Your task to perform on an android device: turn vacation reply on in the gmail app Image 0: 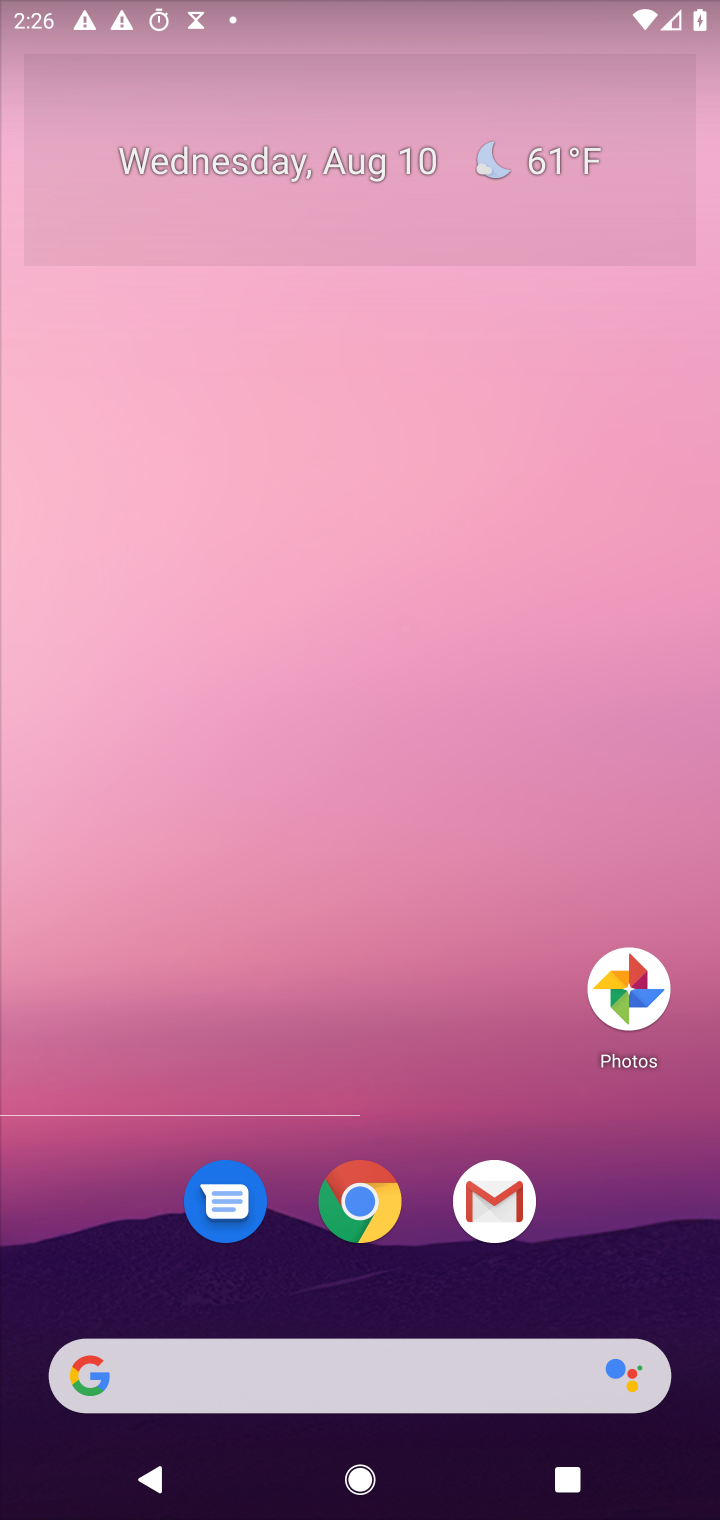
Step 0: click (486, 1222)
Your task to perform on an android device: turn vacation reply on in the gmail app Image 1: 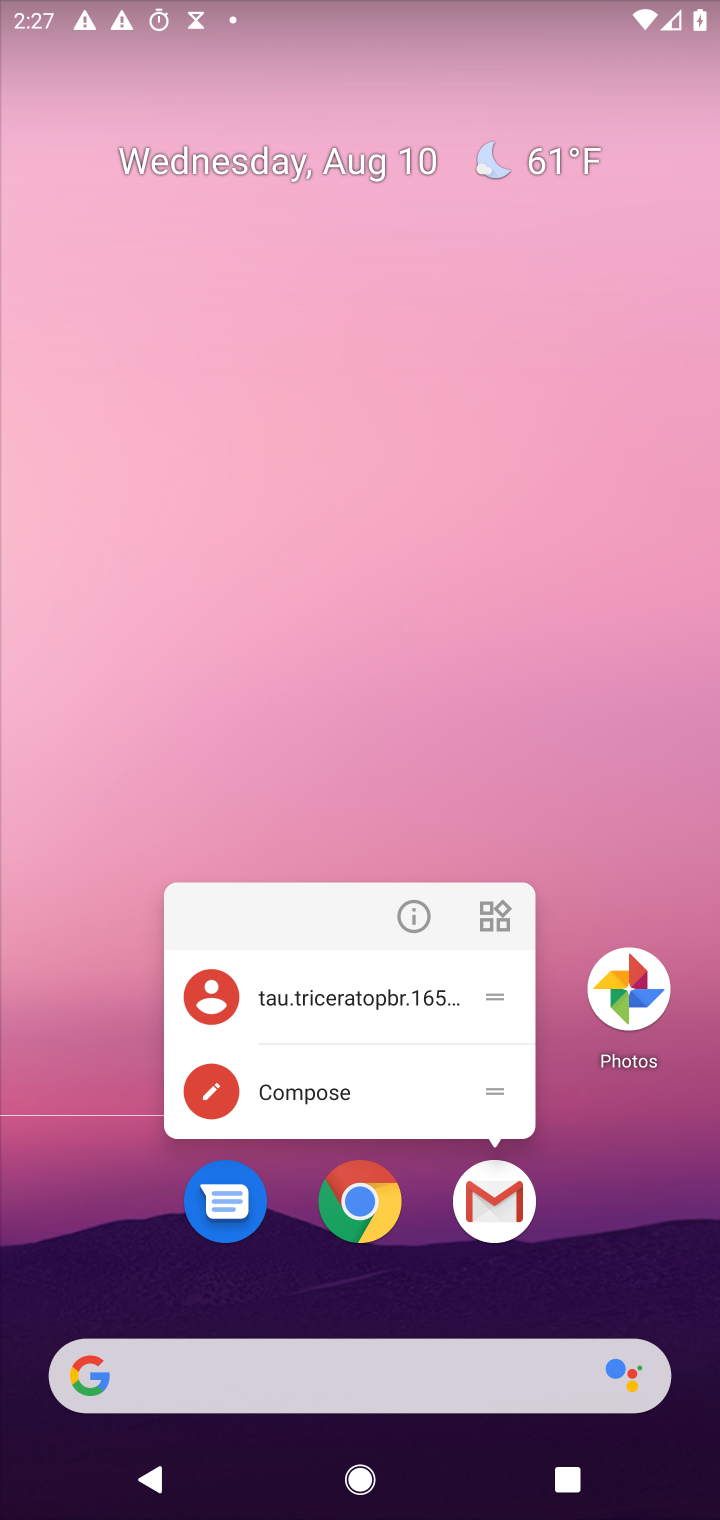
Step 1: click (486, 1222)
Your task to perform on an android device: turn vacation reply on in the gmail app Image 2: 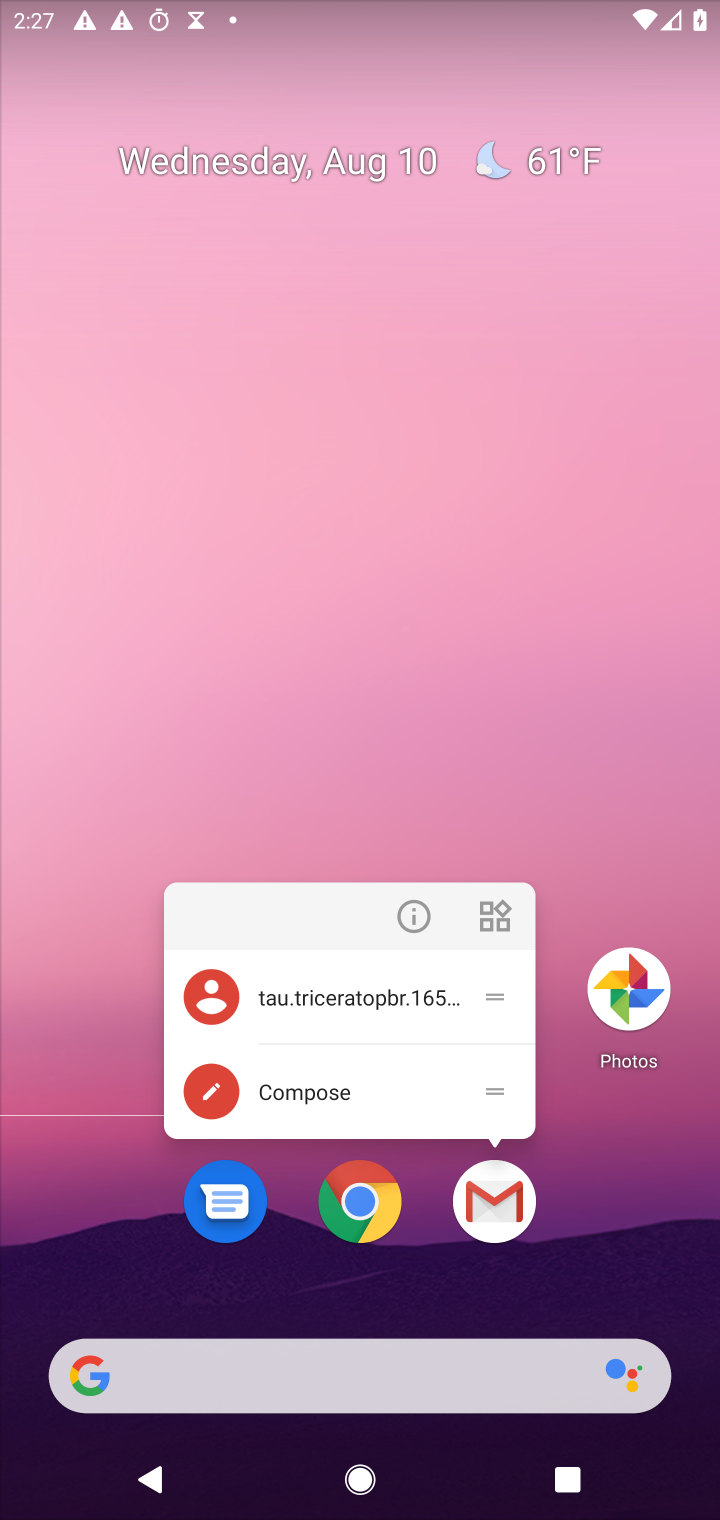
Step 2: click (486, 1222)
Your task to perform on an android device: turn vacation reply on in the gmail app Image 3: 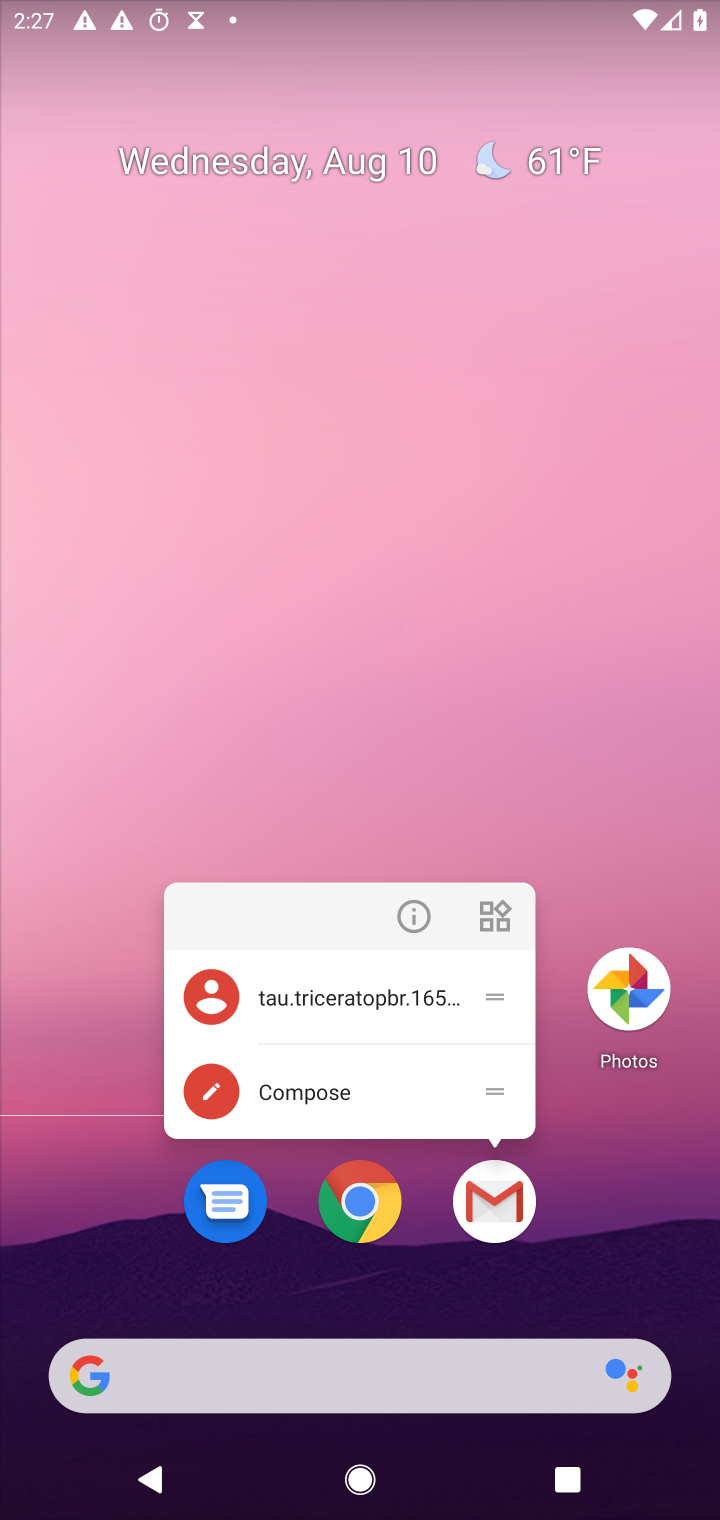
Step 3: click (505, 1192)
Your task to perform on an android device: turn vacation reply on in the gmail app Image 4: 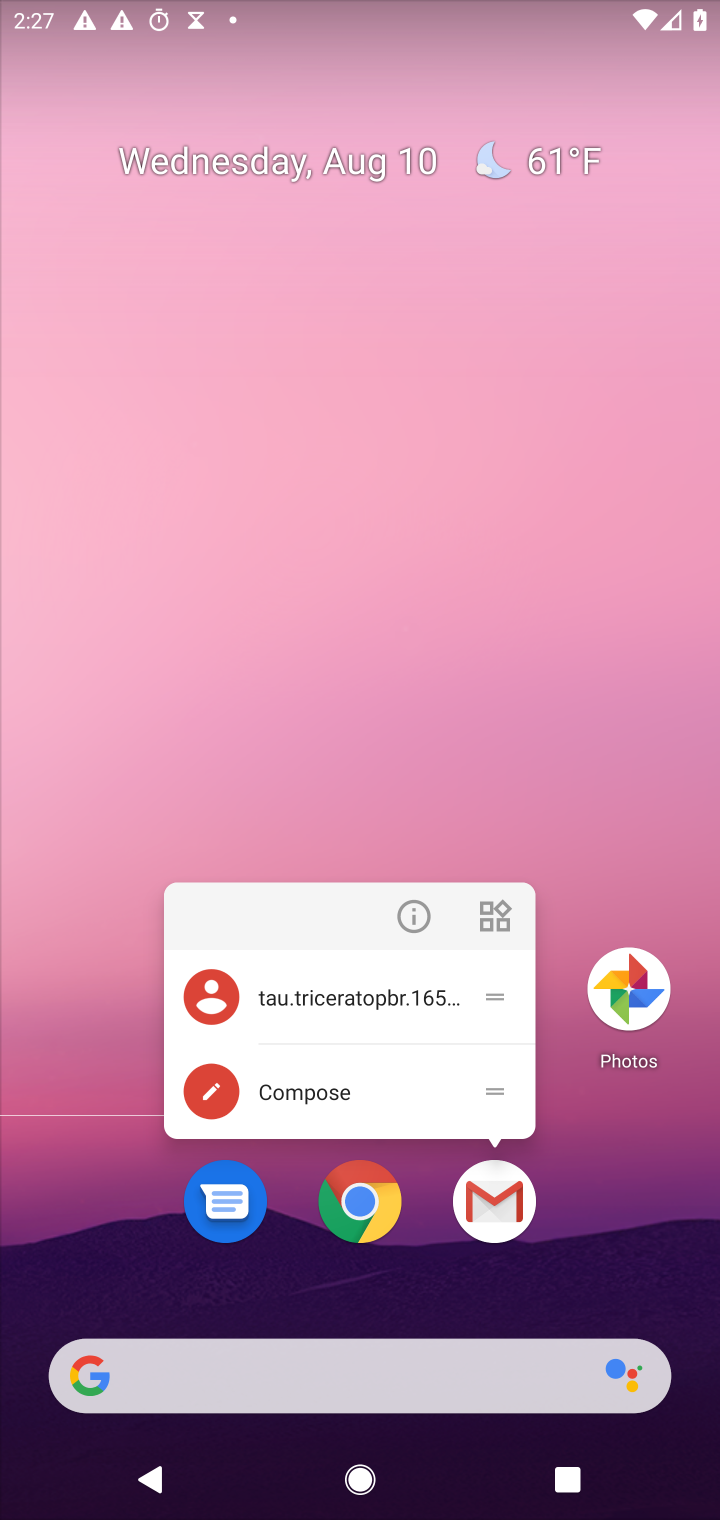
Step 4: click (505, 1192)
Your task to perform on an android device: turn vacation reply on in the gmail app Image 5: 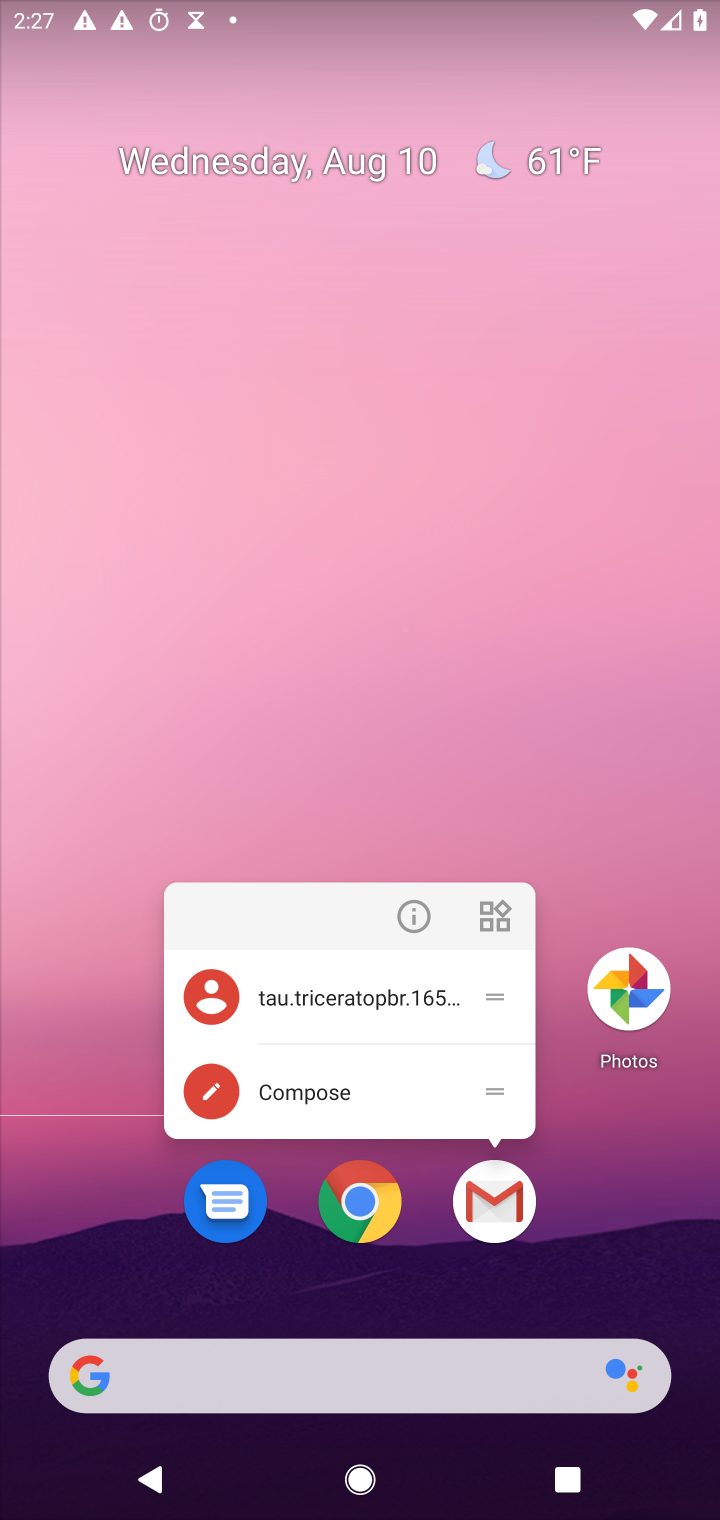
Step 5: click (496, 1207)
Your task to perform on an android device: turn vacation reply on in the gmail app Image 6: 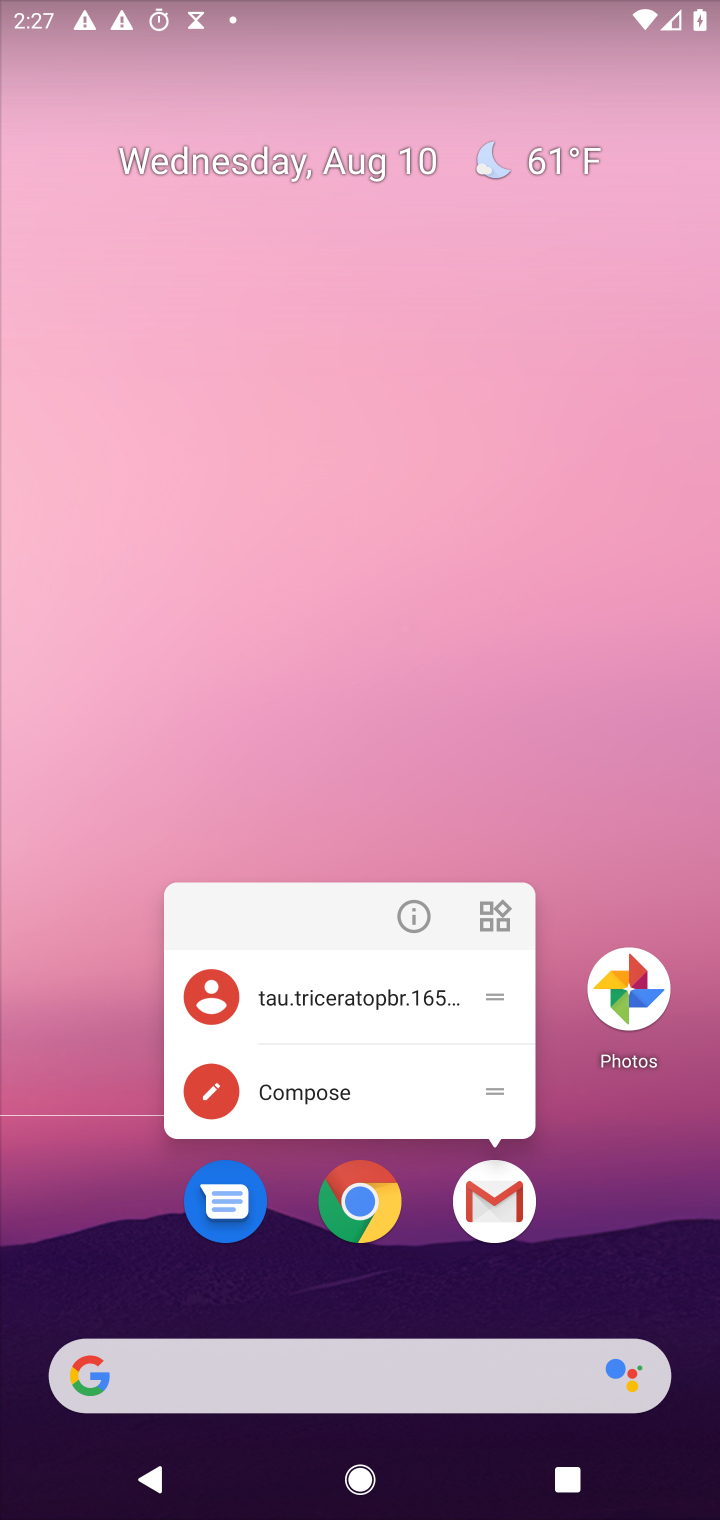
Step 6: click (496, 1207)
Your task to perform on an android device: turn vacation reply on in the gmail app Image 7: 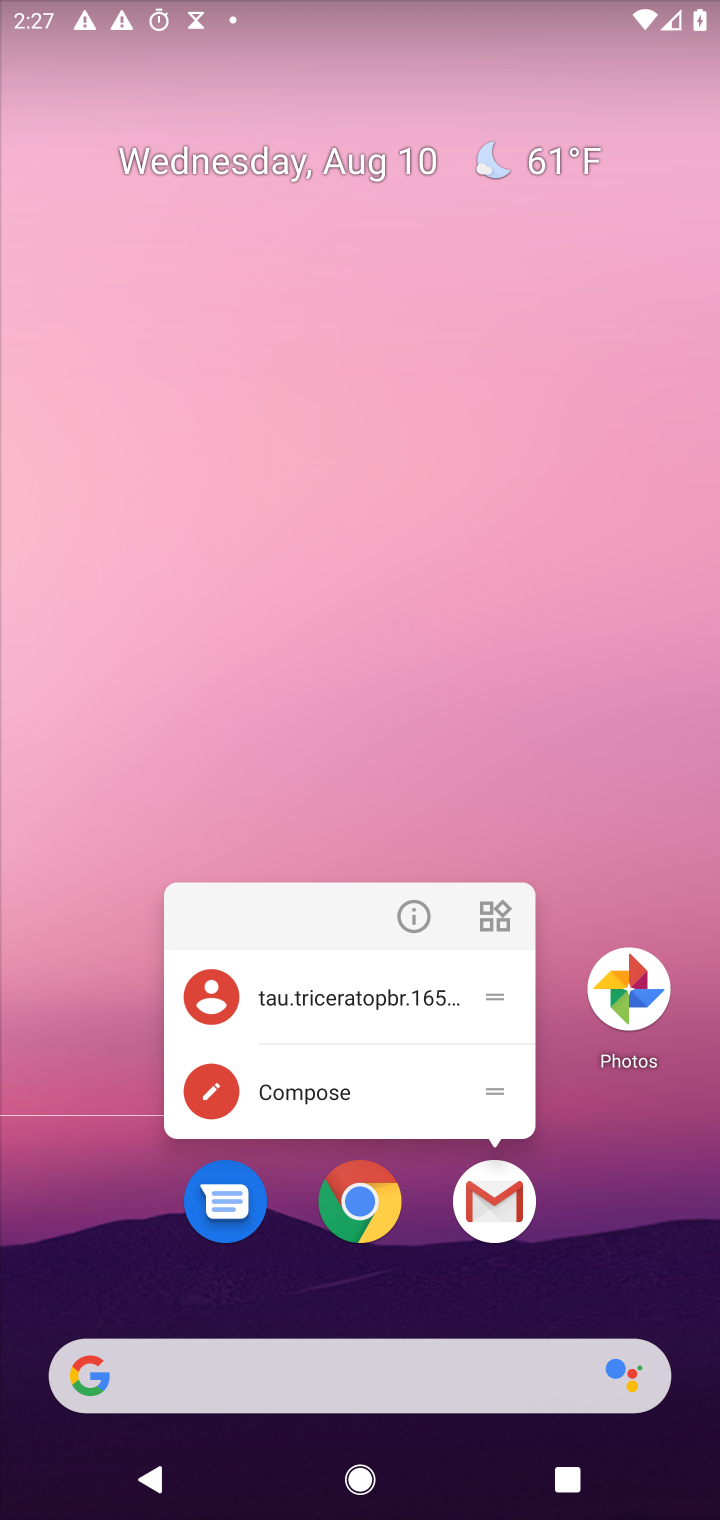
Step 7: click (491, 1220)
Your task to perform on an android device: turn vacation reply on in the gmail app Image 8: 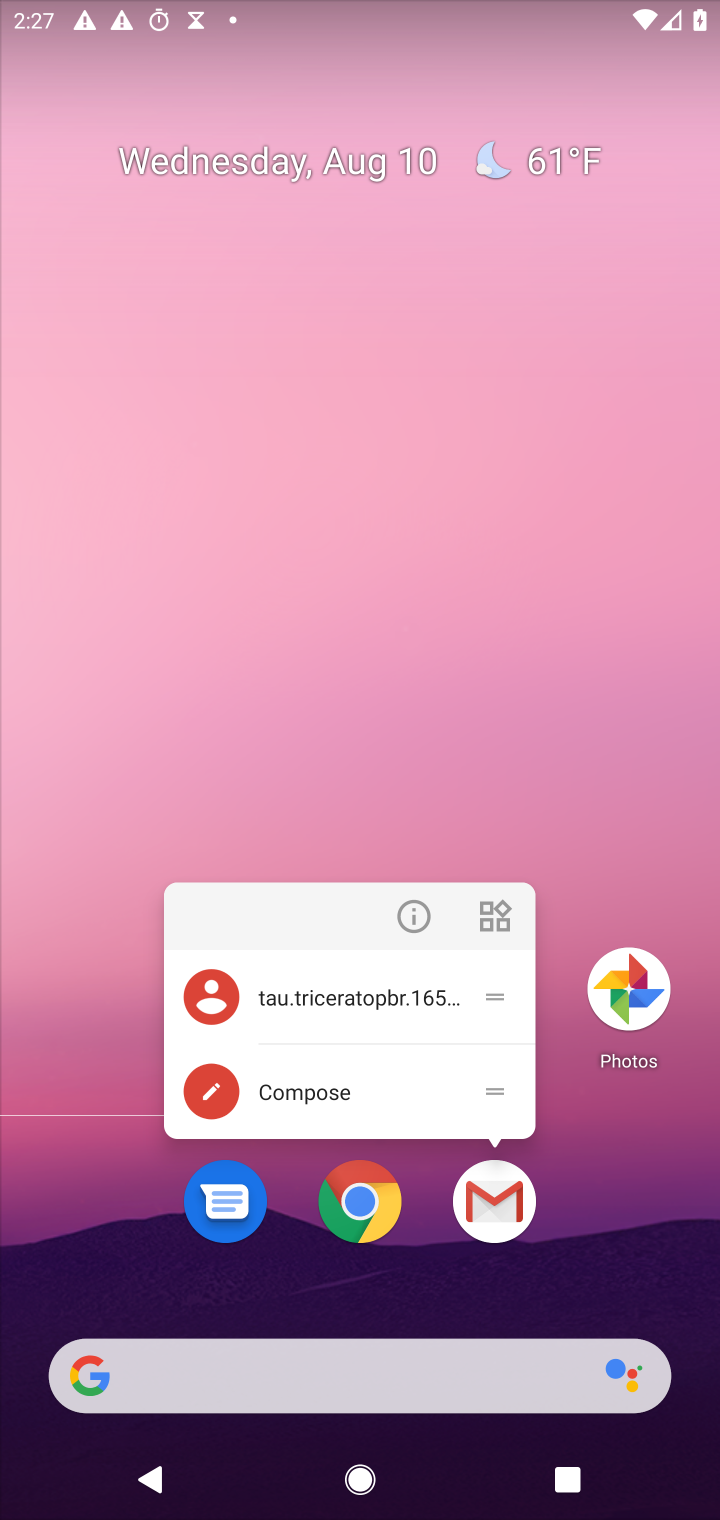
Step 8: click (491, 1220)
Your task to perform on an android device: turn vacation reply on in the gmail app Image 9: 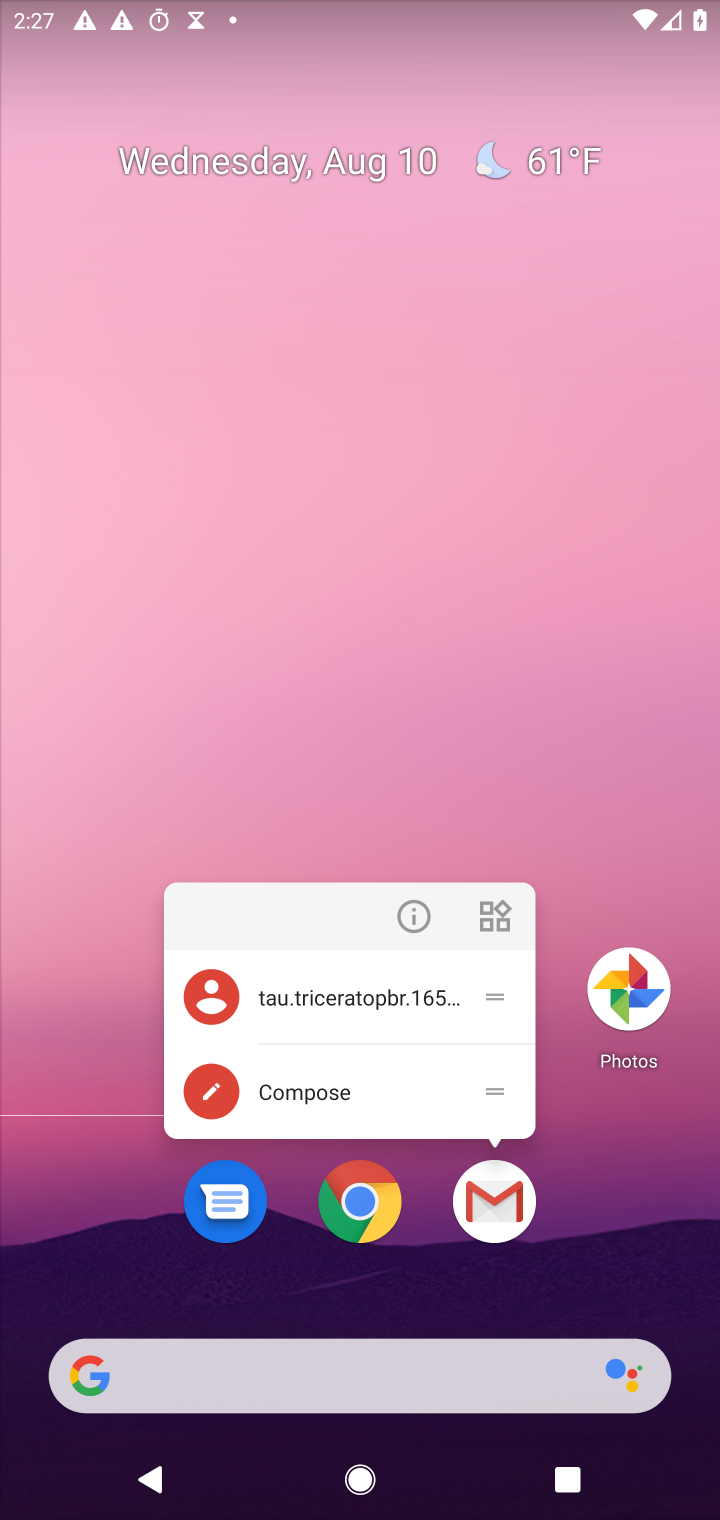
Step 9: click (490, 1228)
Your task to perform on an android device: turn vacation reply on in the gmail app Image 10: 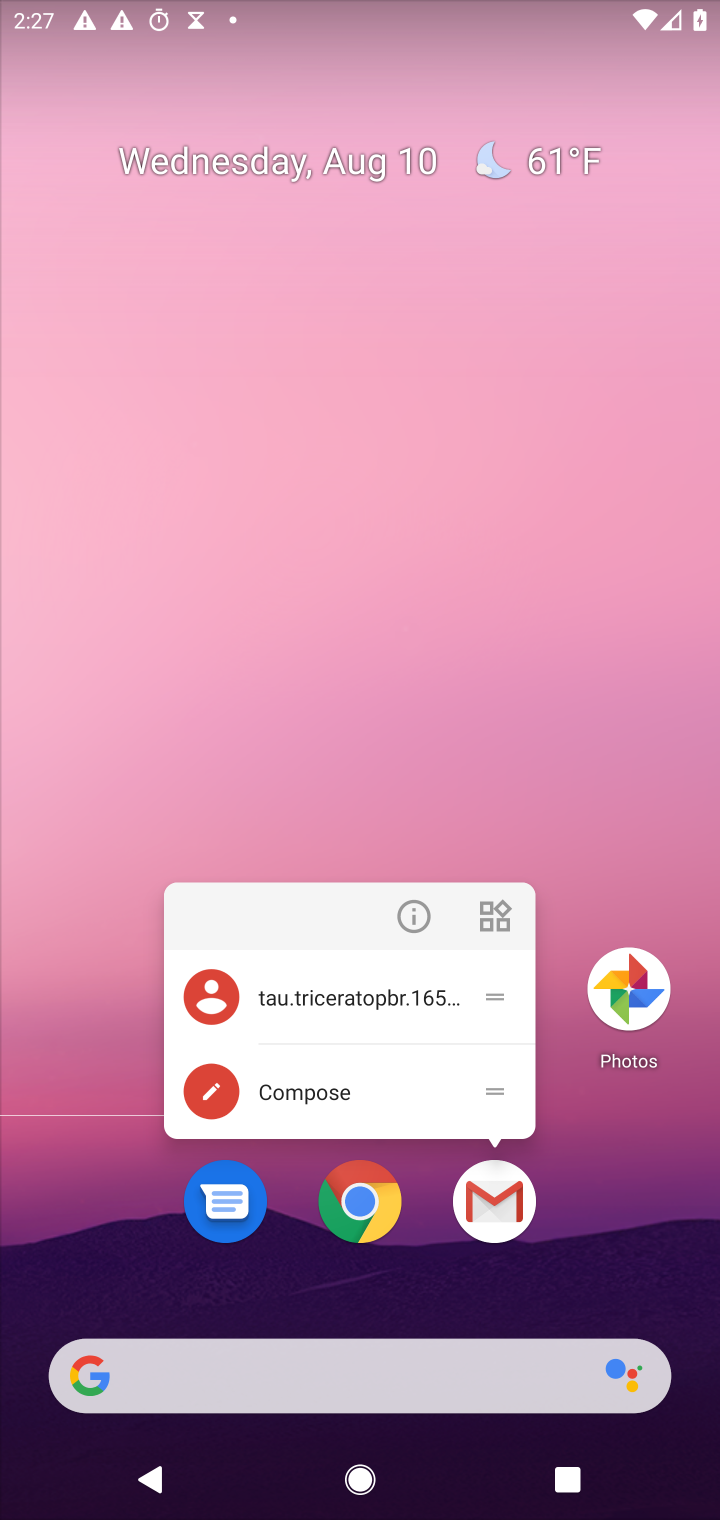
Step 10: click (482, 1173)
Your task to perform on an android device: turn vacation reply on in the gmail app Image 11: 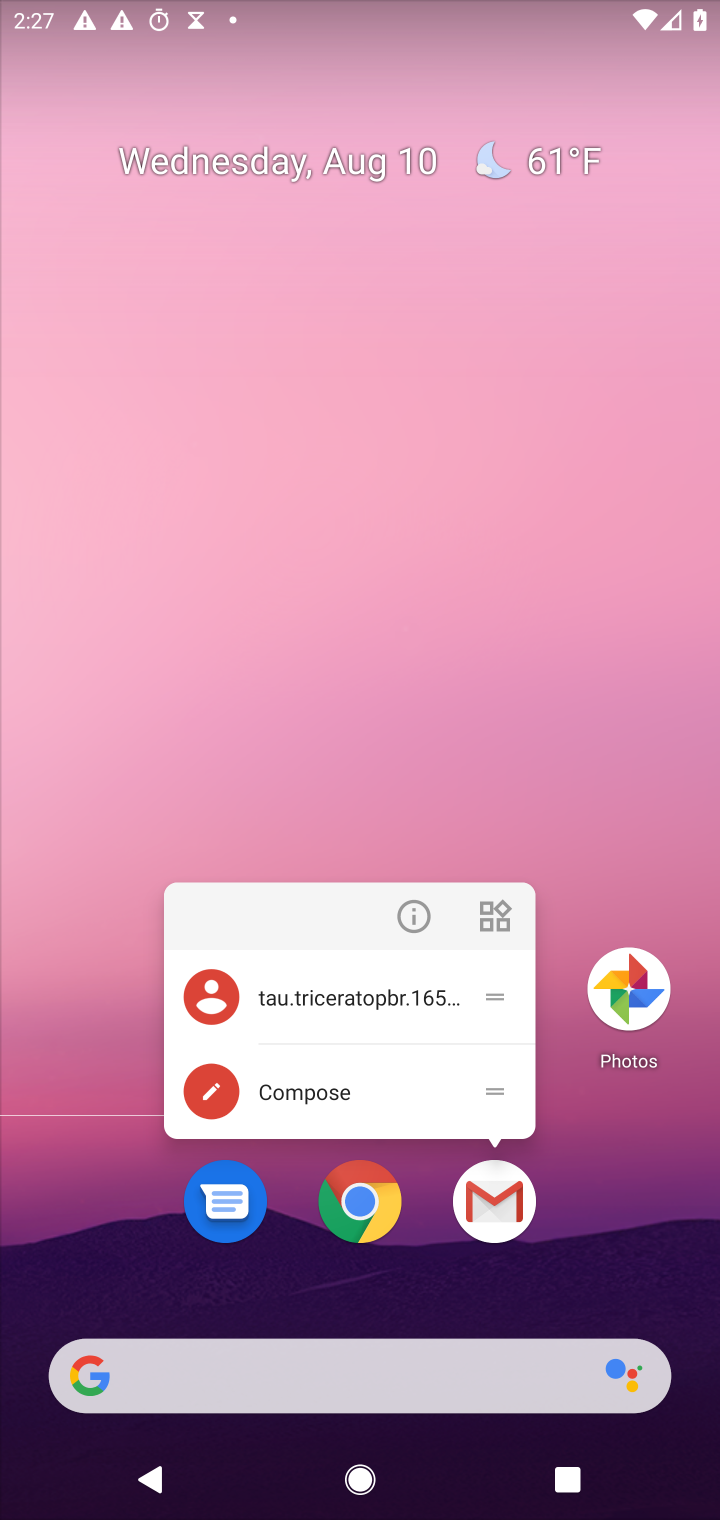
Step 11: click (508, 1209)
Your task to perform on an android device: turn vacation reply on in the gmail app Image 12: 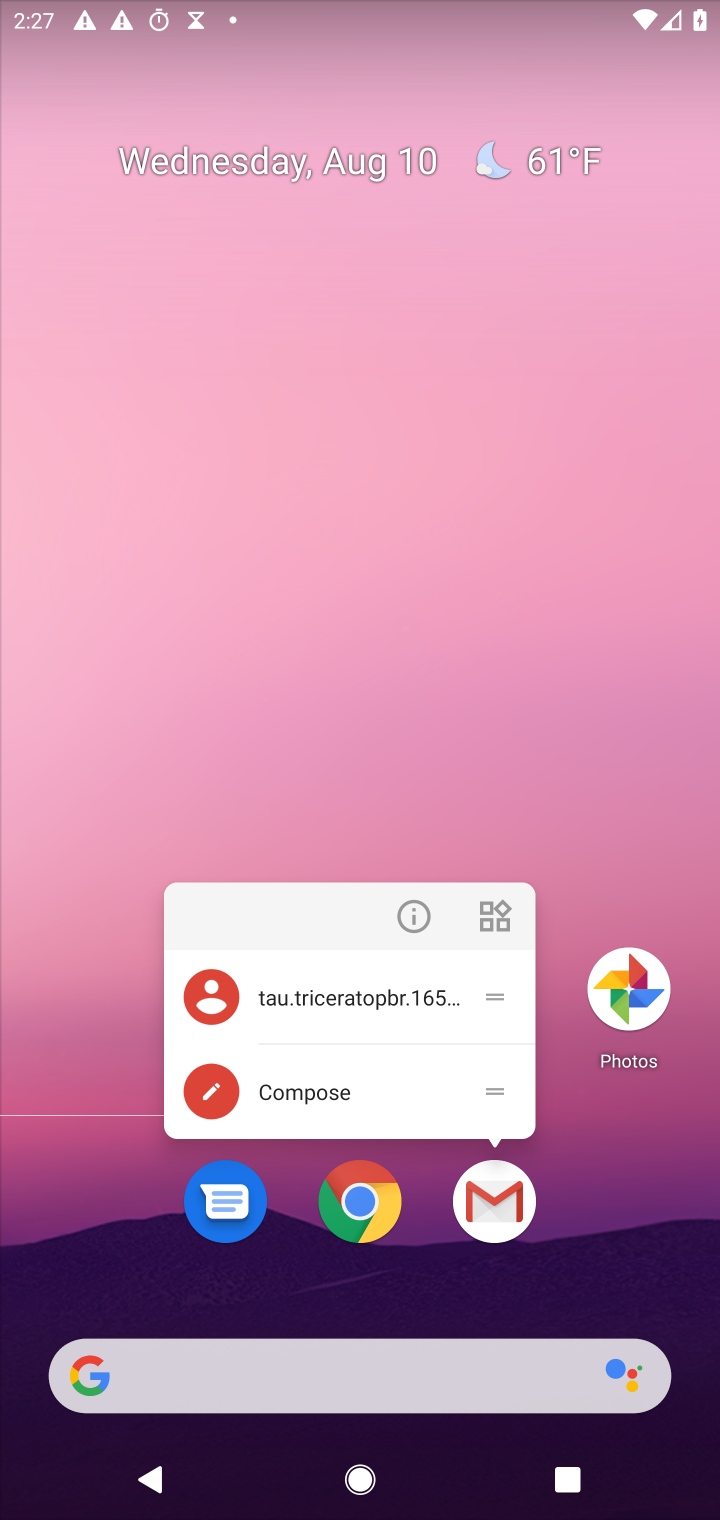
Step 12: click (500, 1211)
Your task to perform on an android device: turn vacation reply on in the gmail app Image 13: 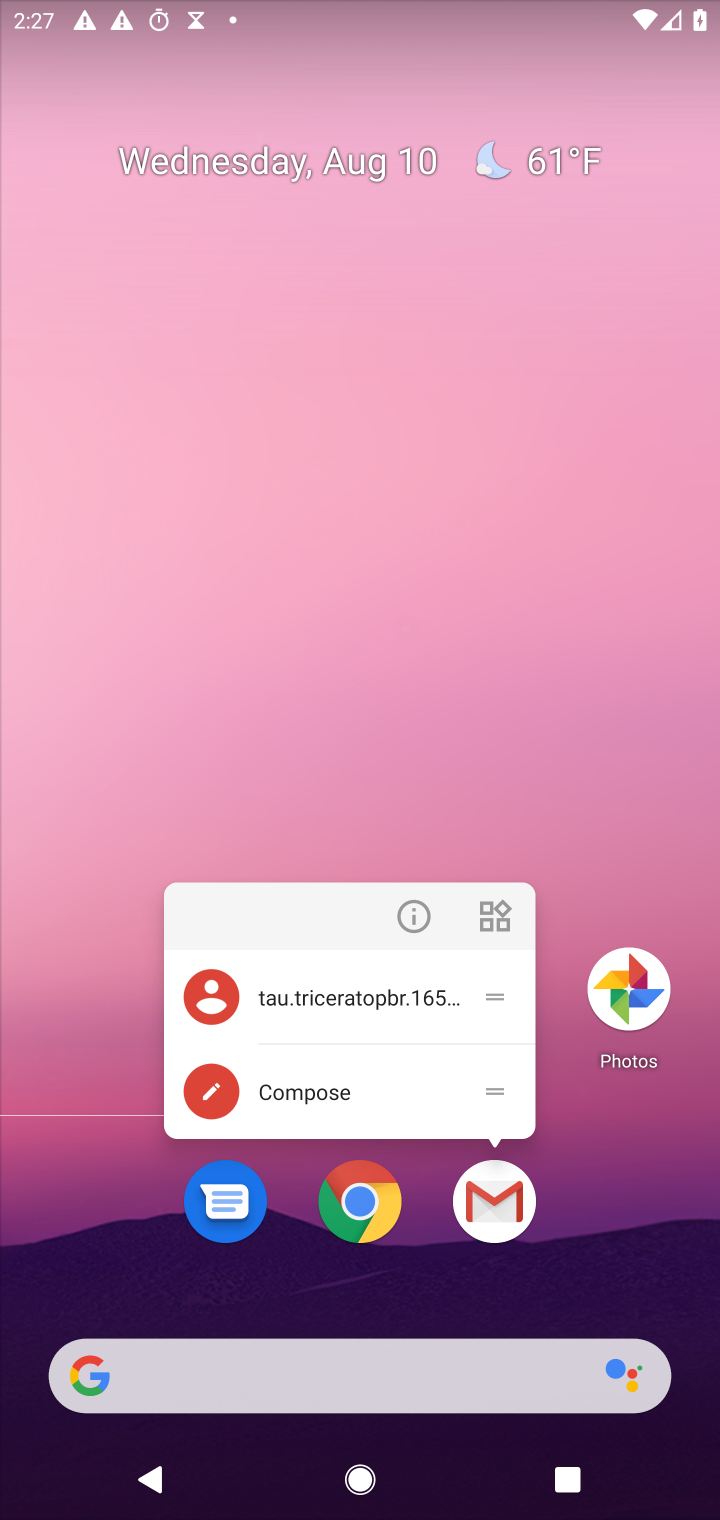
Step 13: click (493, 1221)
Your task to perform on an android device: turn vacation reply on in the gmail app Image 14: 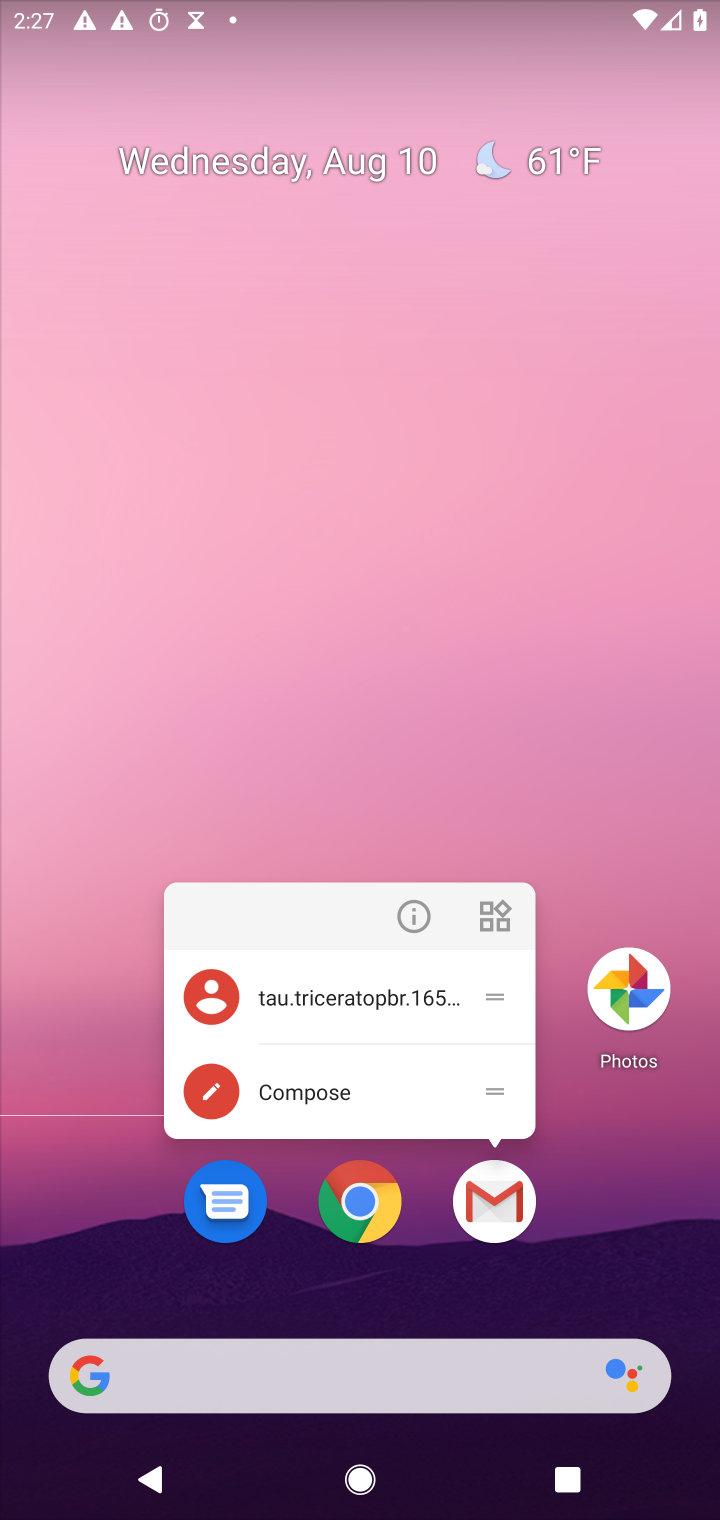
Step 14: click (493, 1221)
Your task to perform on an android device: turn vacation reply on in the gmail app Image 15: 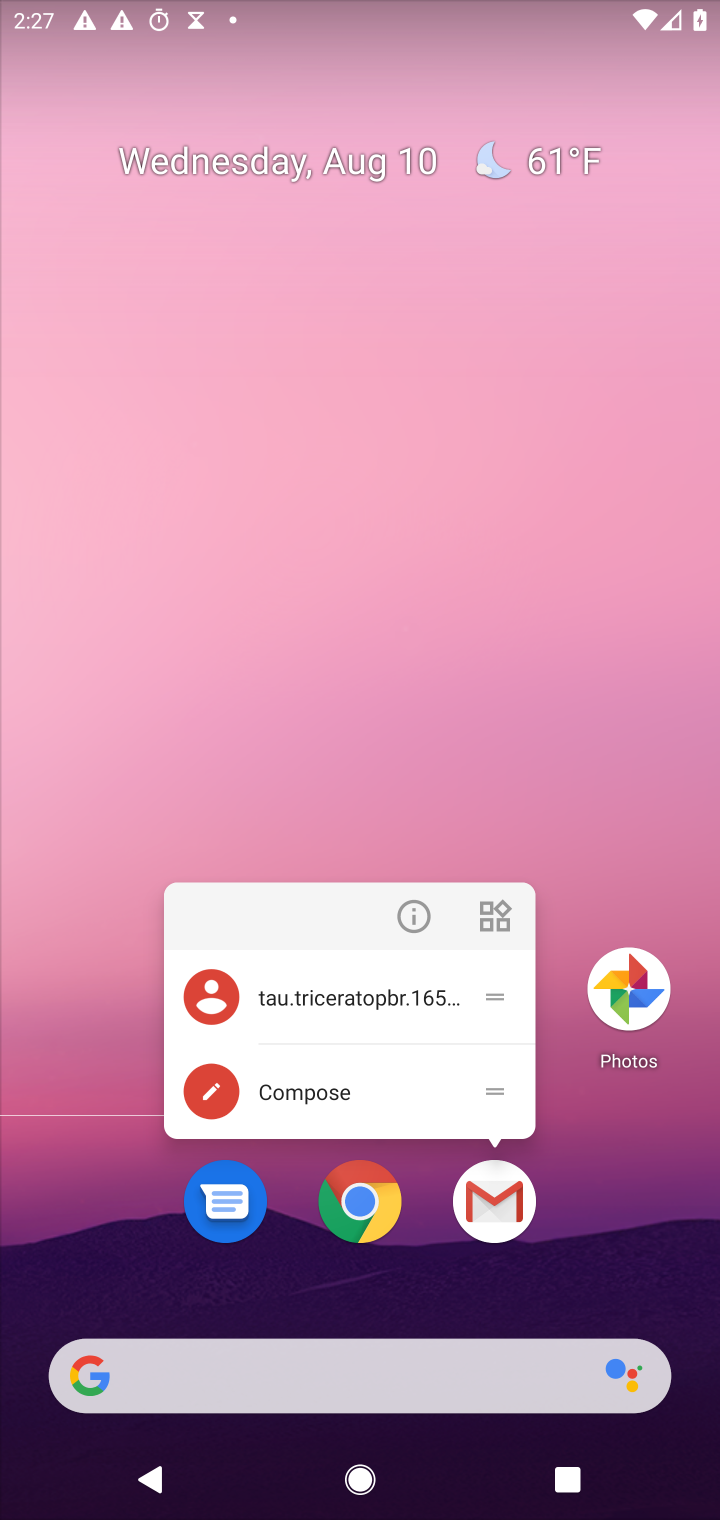
Step 15: click (493, 1221)
Your task to perform on an android device: turn vacation reply on in the gmail app Image 16: 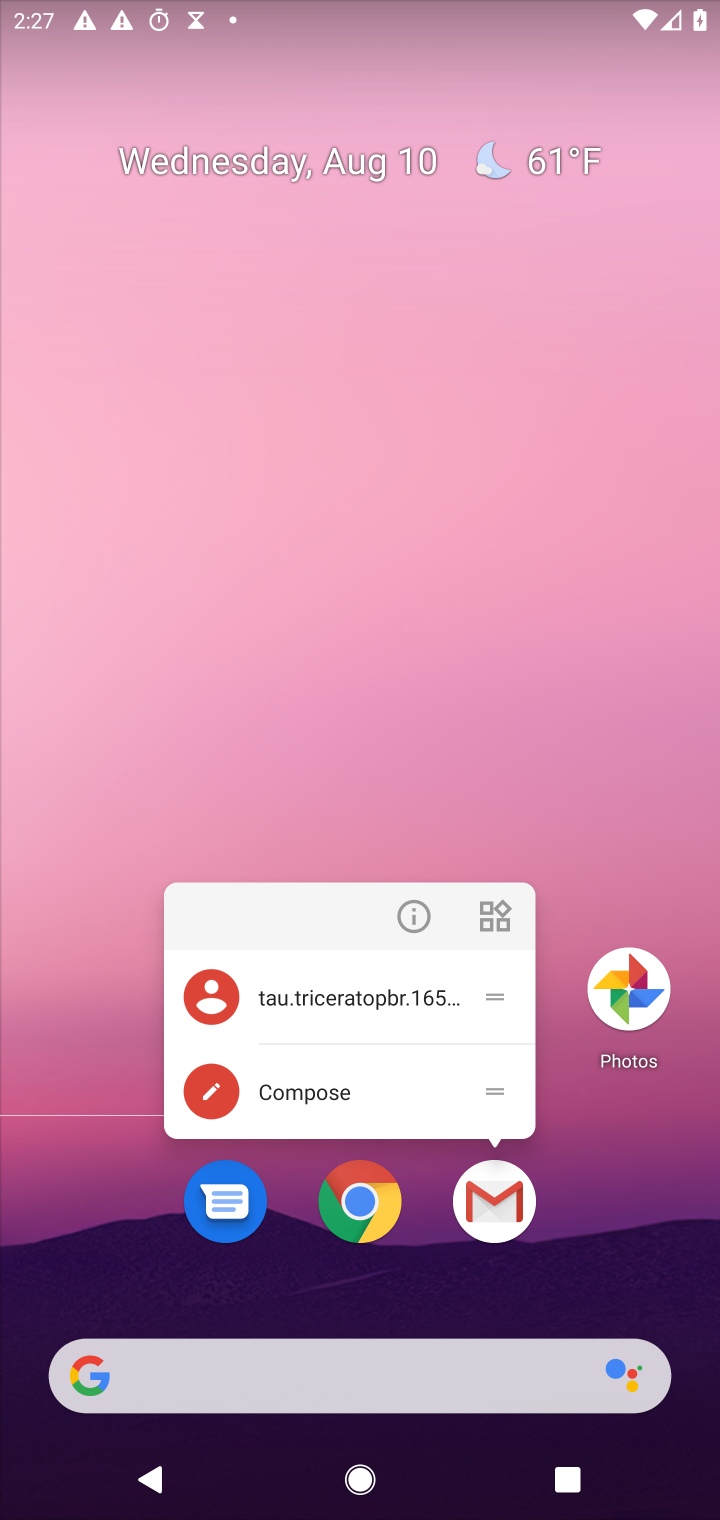
Step 16: click (493, 1221)
Your task to perform on an android device: turn vacation reply on in the gmail app Image 17: 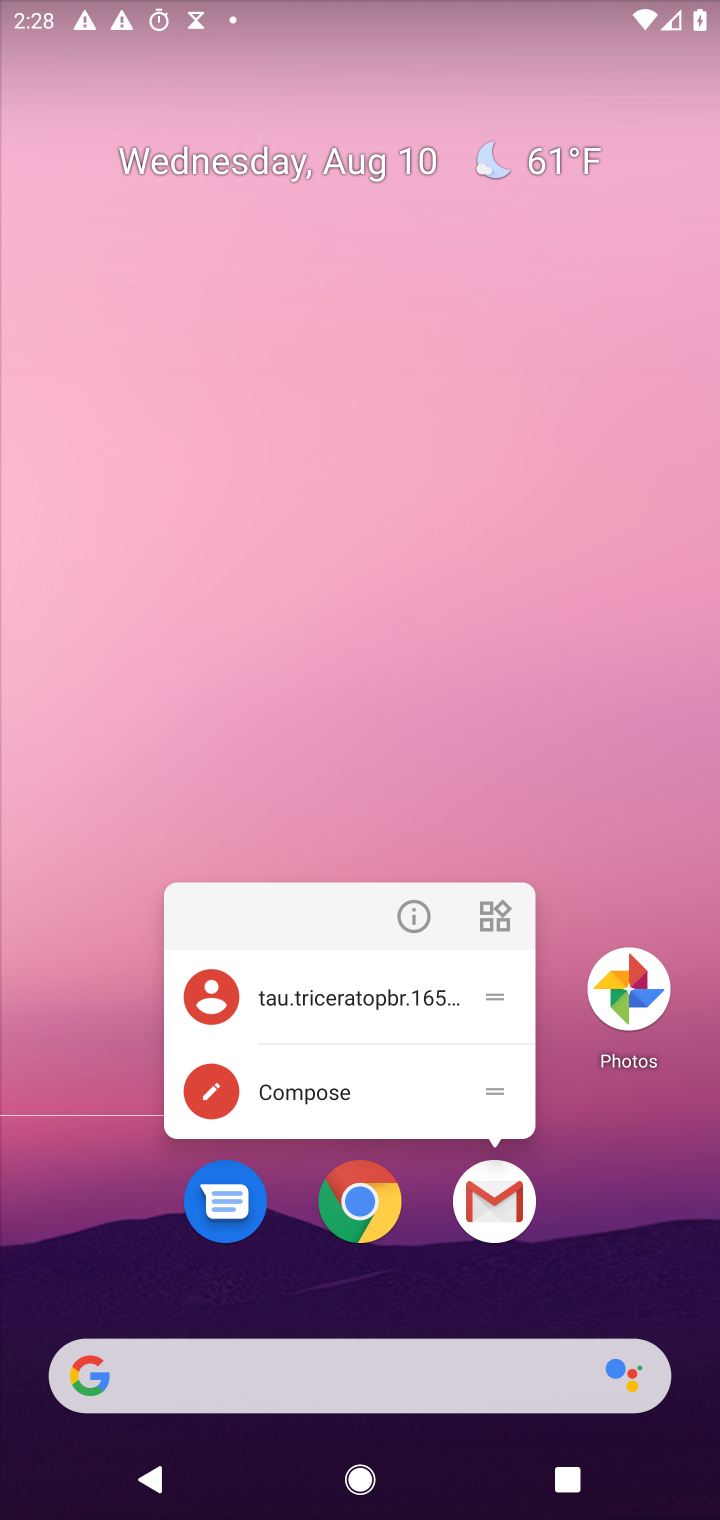
Step 17: click (486, 1227)
Your task to perform on an android device: turn vacation reply on in the gmail app Image 18: 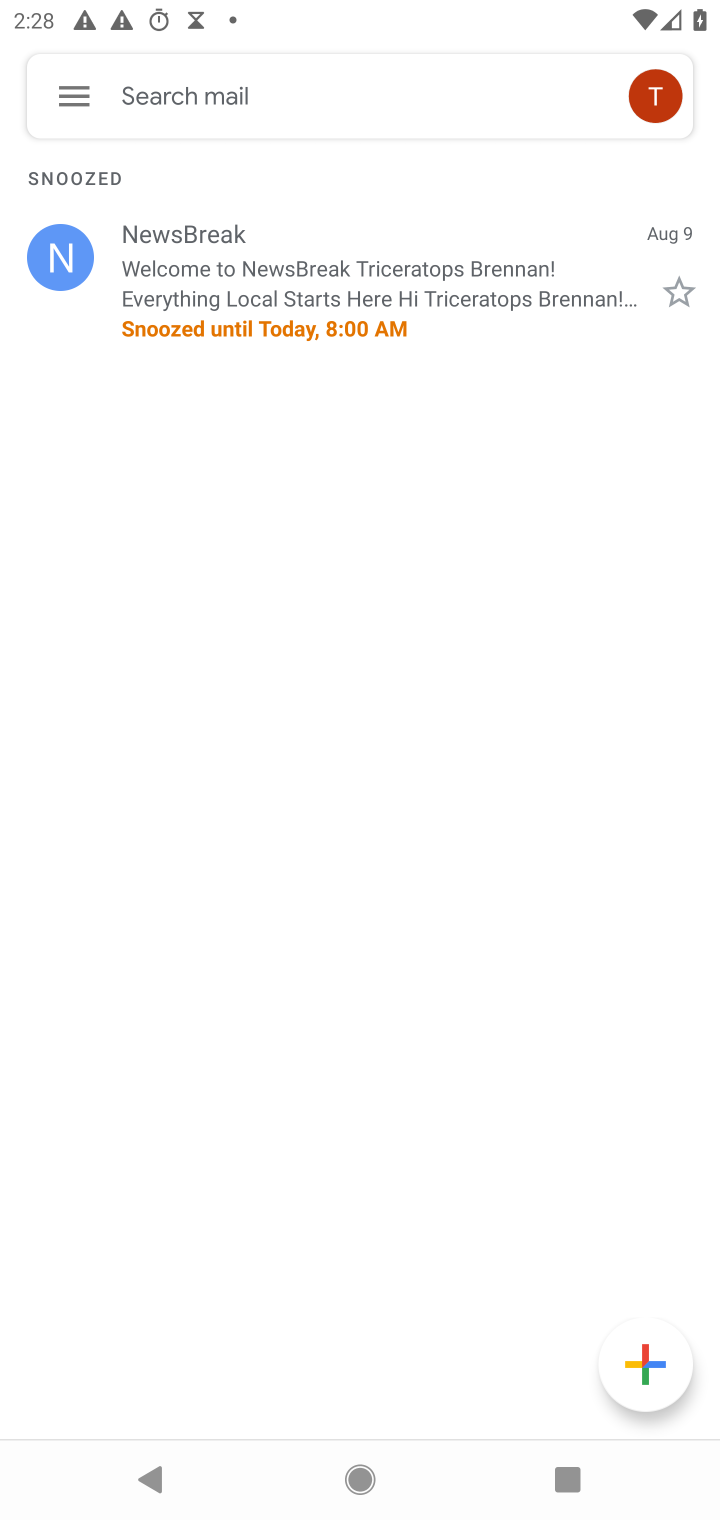
Step 18: click (66, 93)
Your task to perform on an android device: turn vacation reply on in the gmail app Image 19: 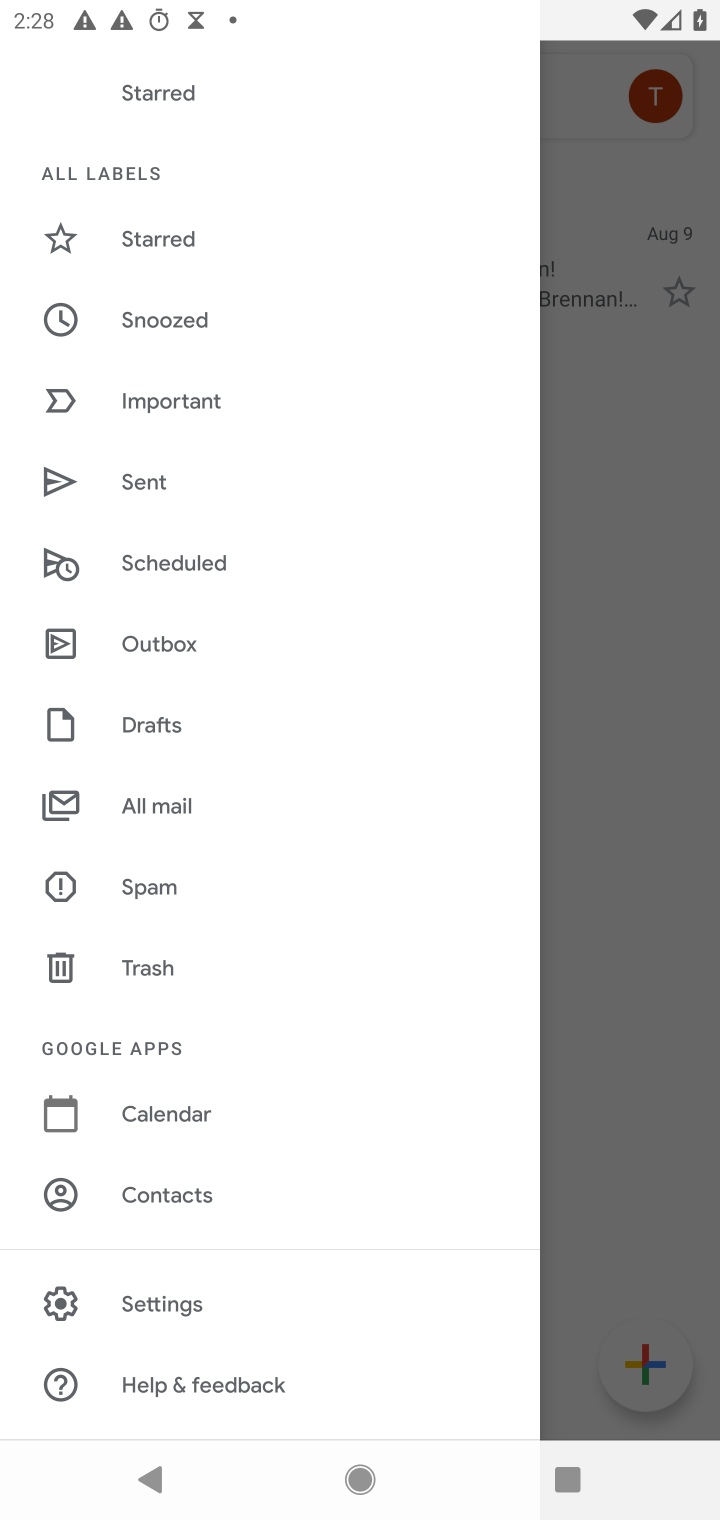
Step 19: click (137, 1315)
Your task to perform on an android device: turn vacation reply on in the gmail app Image 20: 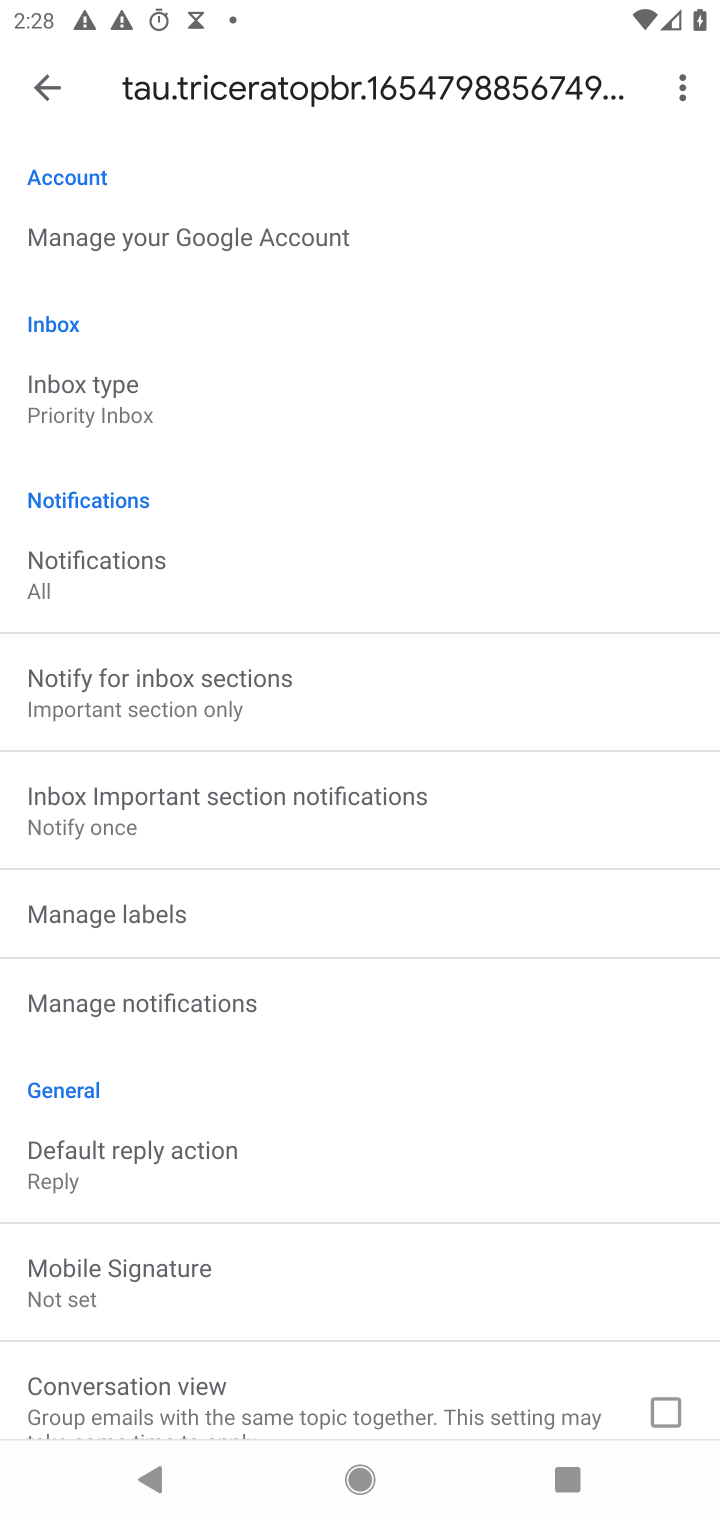
Step 20: drag from (376, 1307) to (625, 19)
Your task to perform on an android device: turn vacation reply on in the gmail app Image 21: 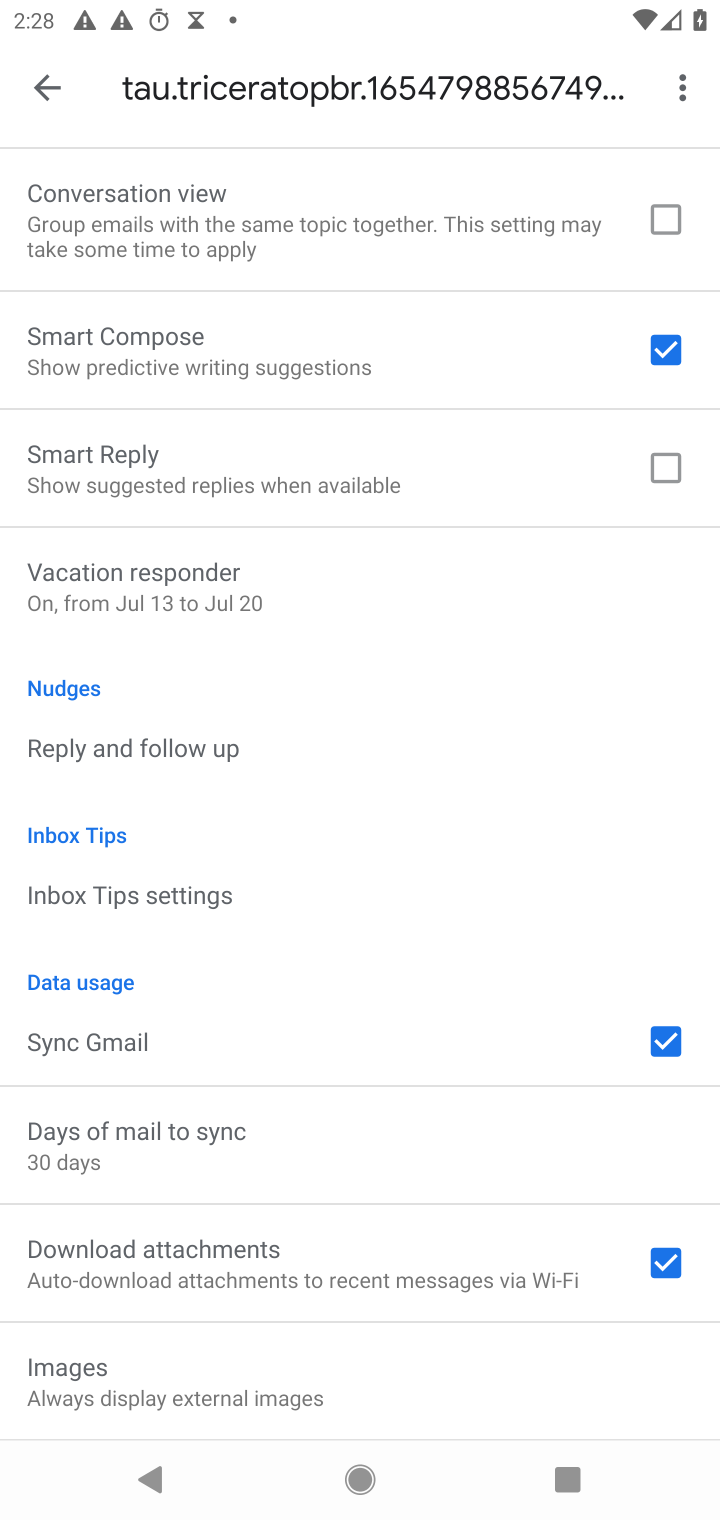
Step 21: click (119, 581)
Your task to perform on an android device: turn vacation reply on in the gmail app Image 22: 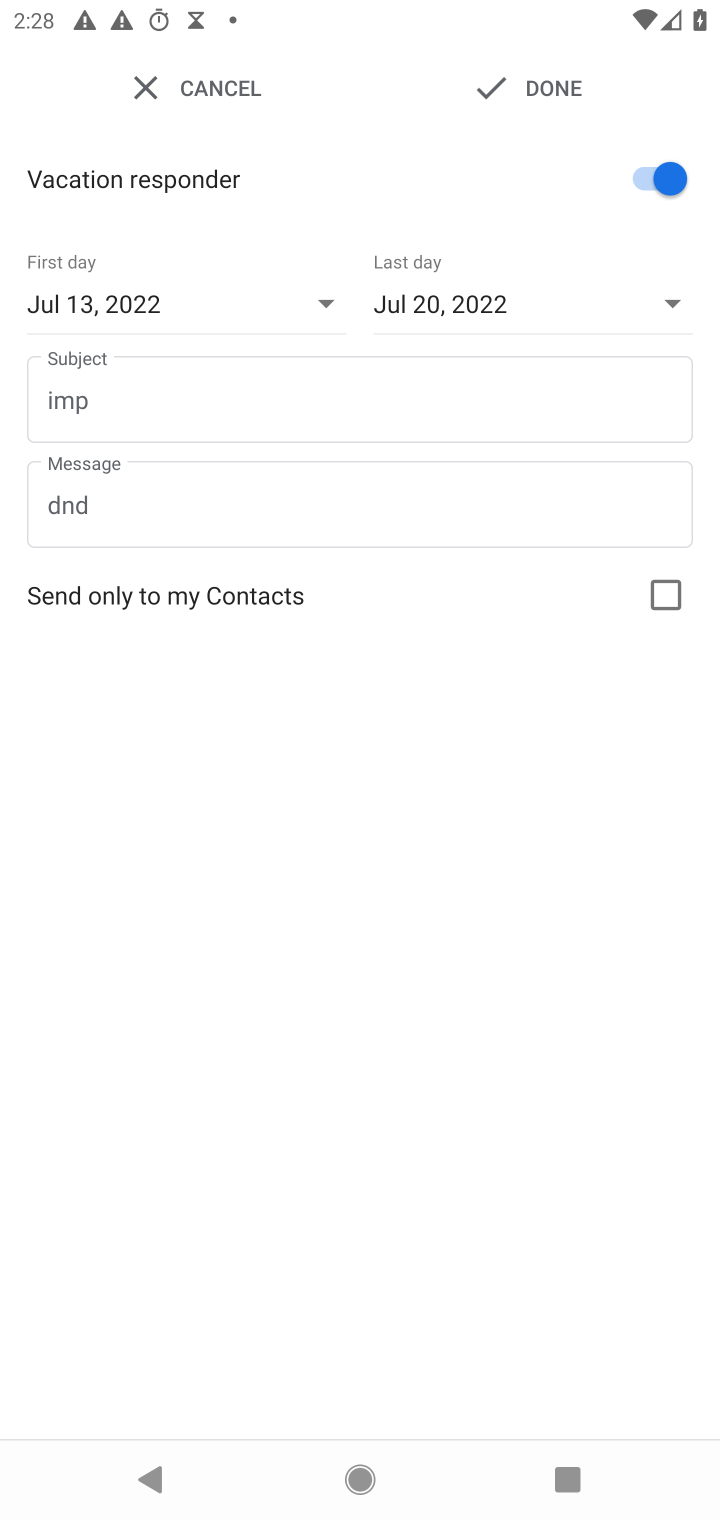
Step 22: task complete